Your task to perform on an android device: Open Youtube and go to the subscriptions tab Image 0: 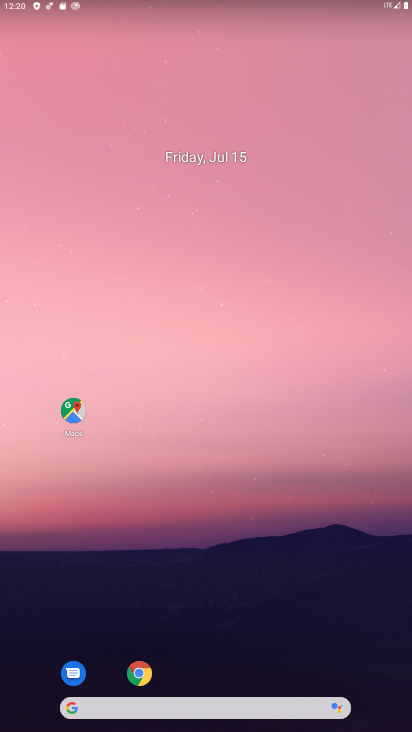
Step 0: press home button
Your task to perform on an android device: Open Youtube and go to the subscriptions tab Image 1: 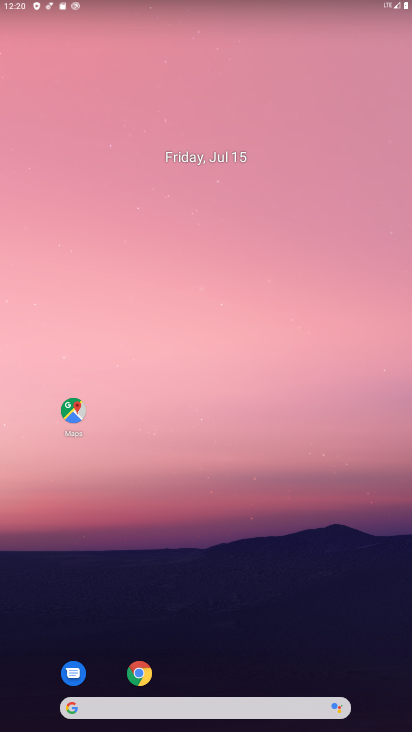
Step 1: drag from (380, 659) to (366, 84)
Your task to perform on an android device: Open Youtube and go to the subscriptions tab Image 2: 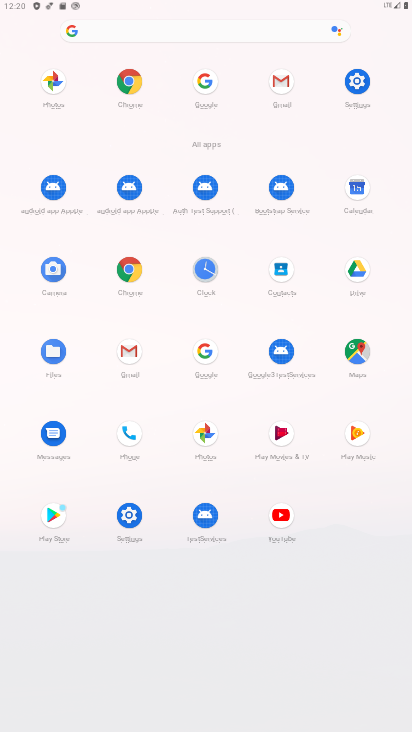
Step 2: click (281, 518)
Your task to perform on an android device: Open Youtube and go to the subscriptions tab Image 3: 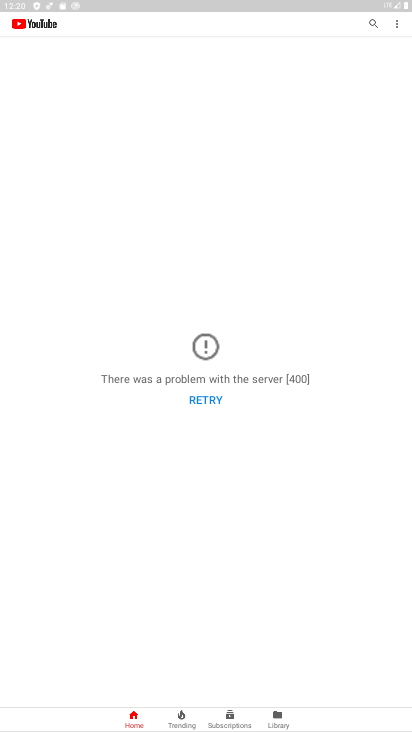
Step 3: click (220, 716)
Your task to perform on an android device: Open Youtube and go to the subscriptions tab Image 4: 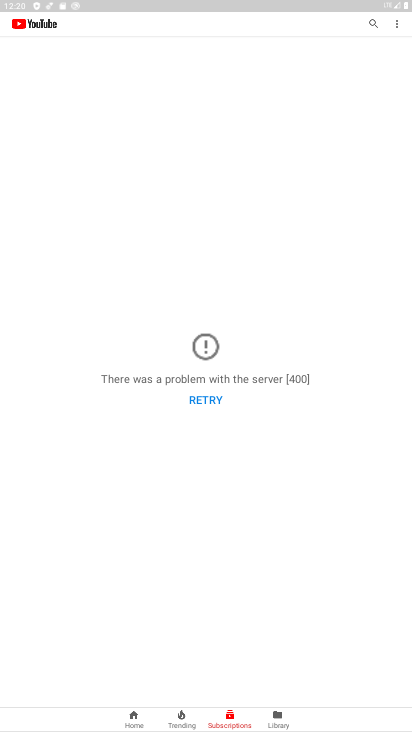
Step 4: task complete